Your task to perform on an android device: Toggle the flashlight Image 0: 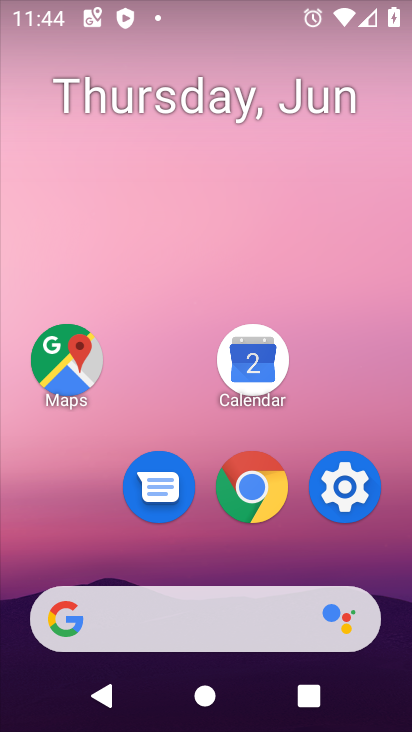
Step 0: drag from (250, 653) to (203, 36)
Your task to perform on an android device: Toggle the flashlight Image 1: 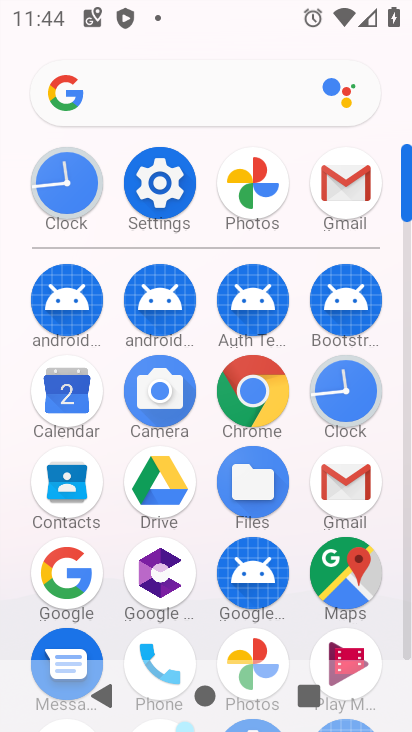
Step 1: click (151, 180)
Your task to perform on an android device: Toggle the flashlight Image 2: 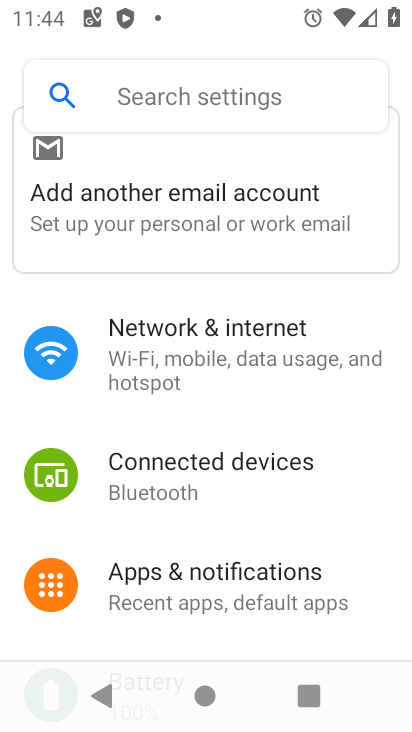
Step 2: click (165, 98)
Your task to perform on an android device: Toggle the flashlight Image 3: 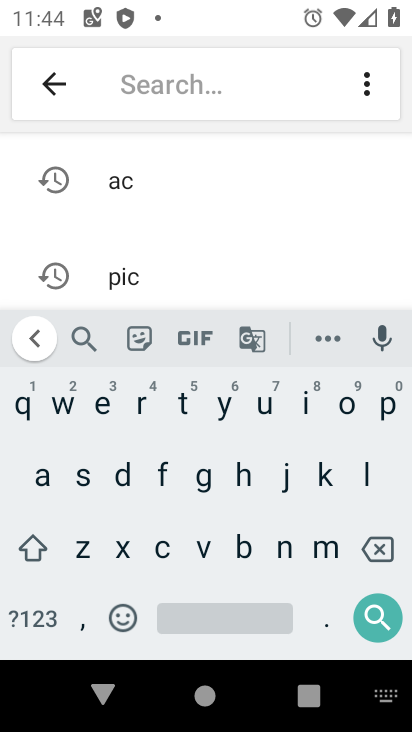
Step 3: click (161, 471)
Your task to perform on an android device: Toggle the flashlight Image 4: 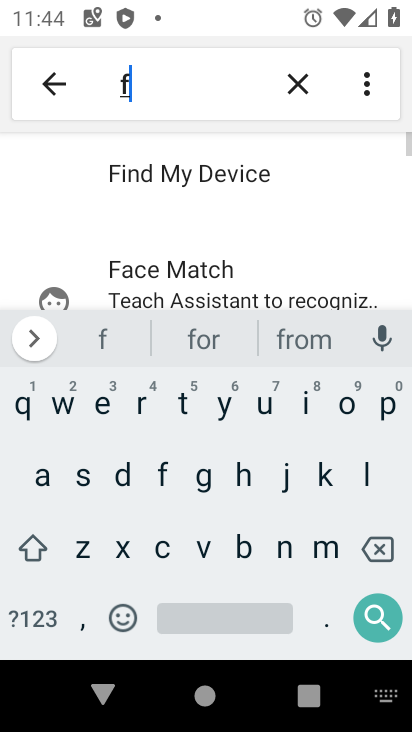
Step 4: click (369, 478)
Your task to perform on an android device: Toggle the flashlight Image 5: 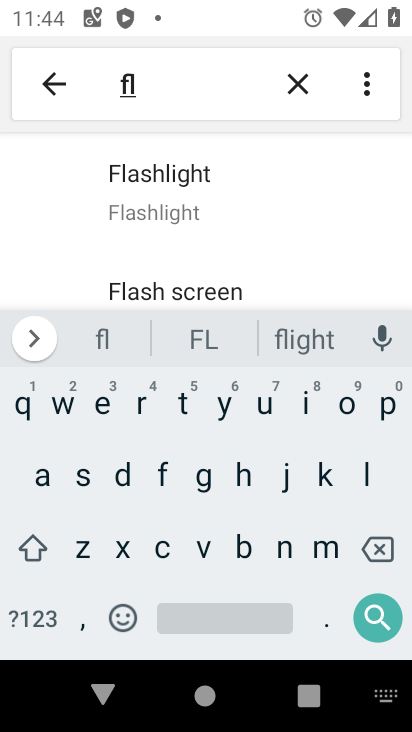
Step 5: click (149, 189)
Your task to perform on an android device: Toggle the flashlight Image 6: 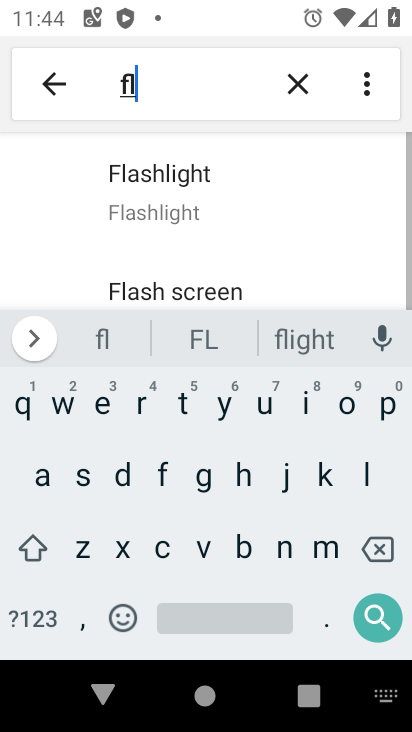
Step 6: click (149, 189)
Your task to perform on an android device: Toggle the flashlight Image 7: 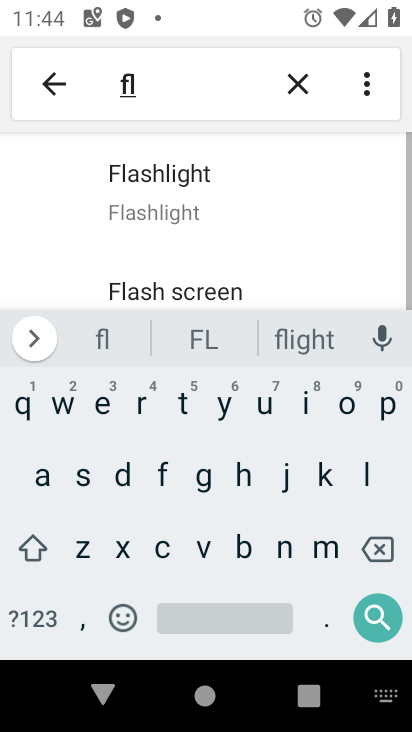
Step 7: task complete